Your task to perform on an android device: Open internet settings Image 0: 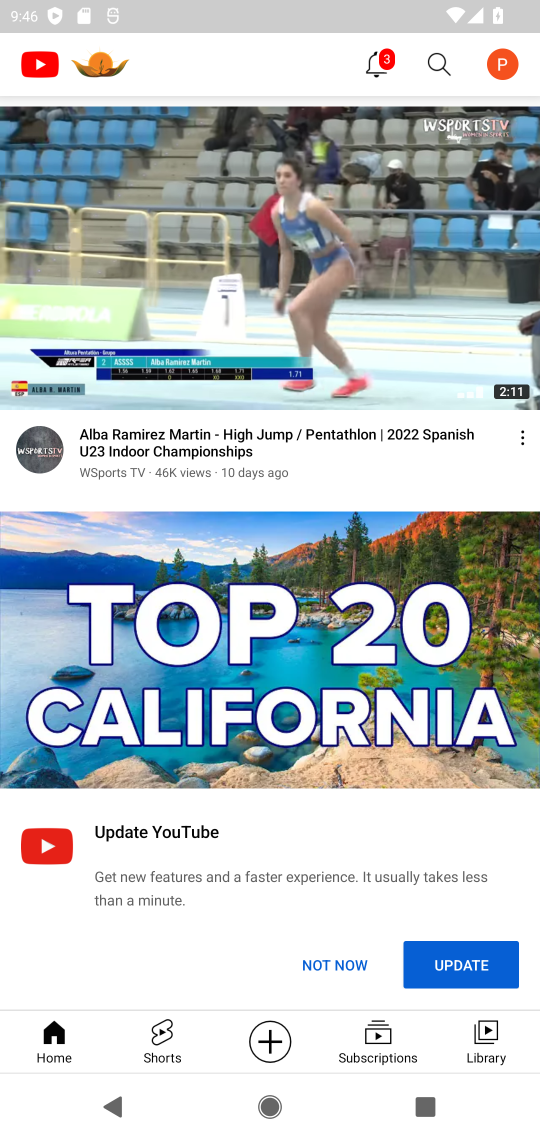
Step 0: press home button
Your task to perform on an android device: Open internet settings Image 1: 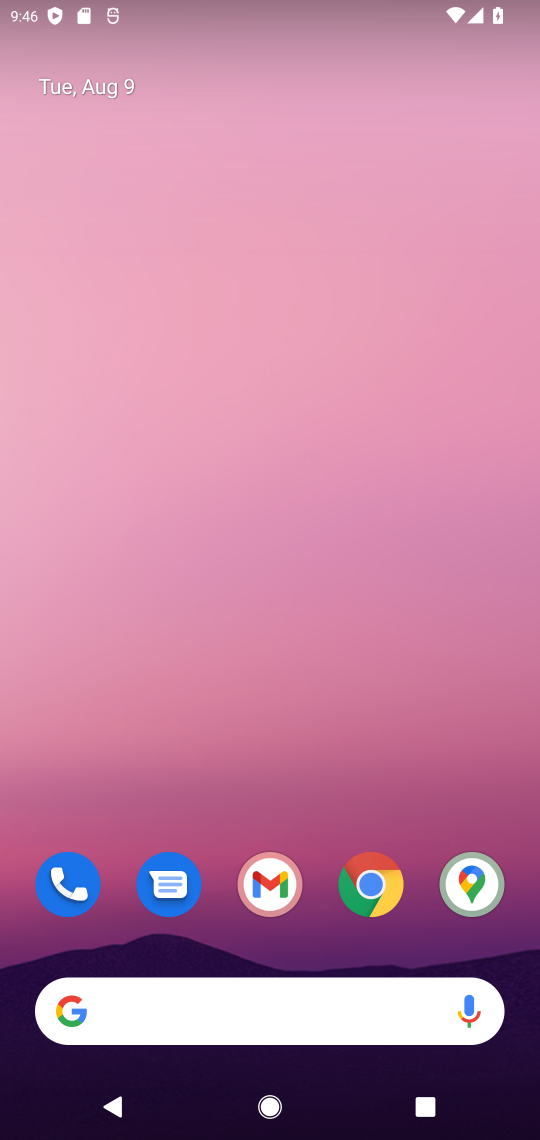
Step 1: drag from (275, 804) to (332, 412)
Your task to perform on an android device: Open internet settings Image 2: 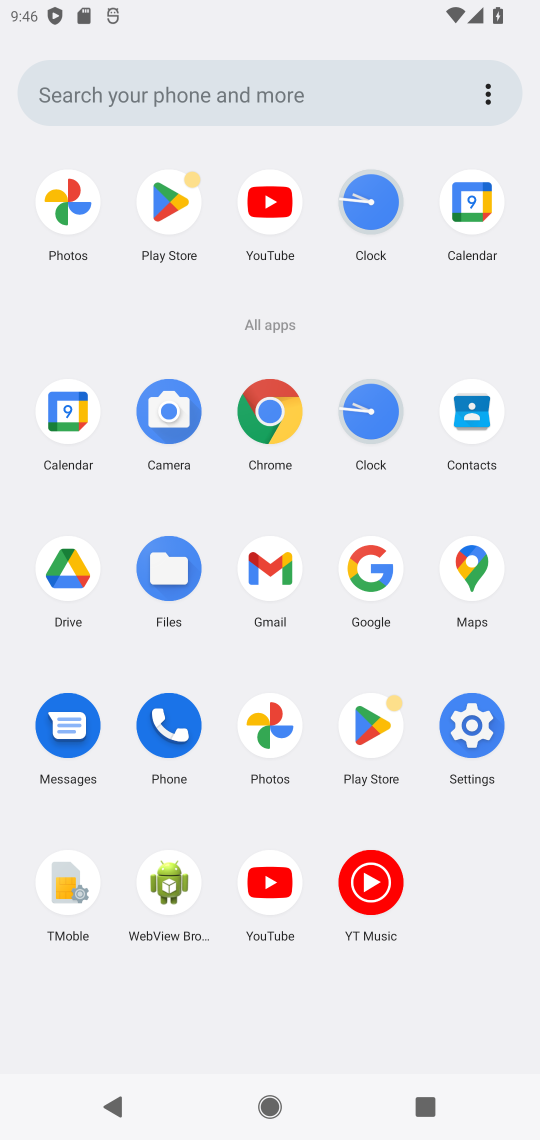
Step 2: click (474, 723)
Your task to perform on an android device: Open internet settings Image 3: 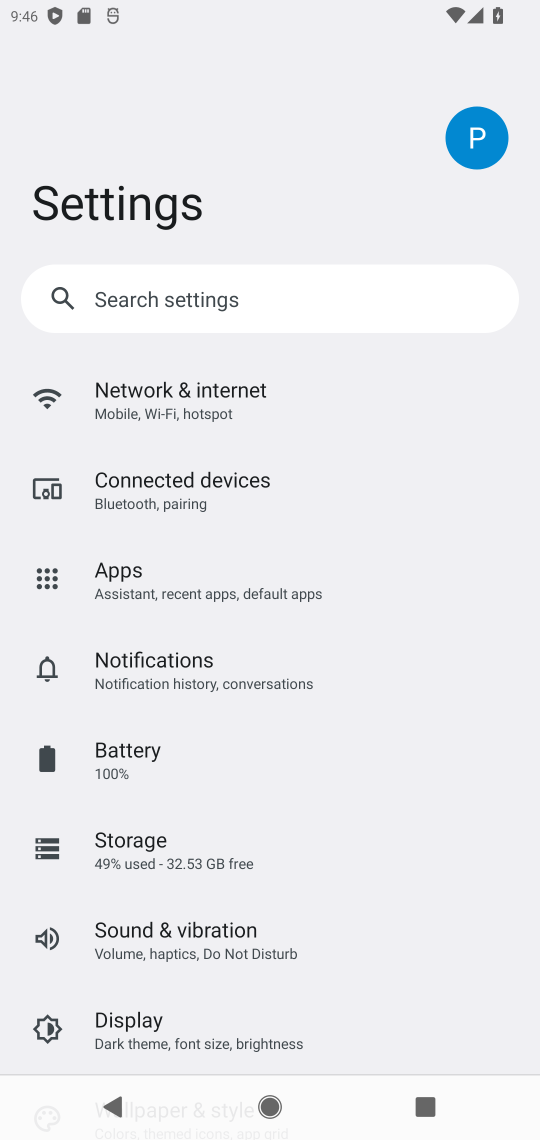
Step 3: click (202, 414)
Your task to perform on an android device: Open internet settings Image 4: 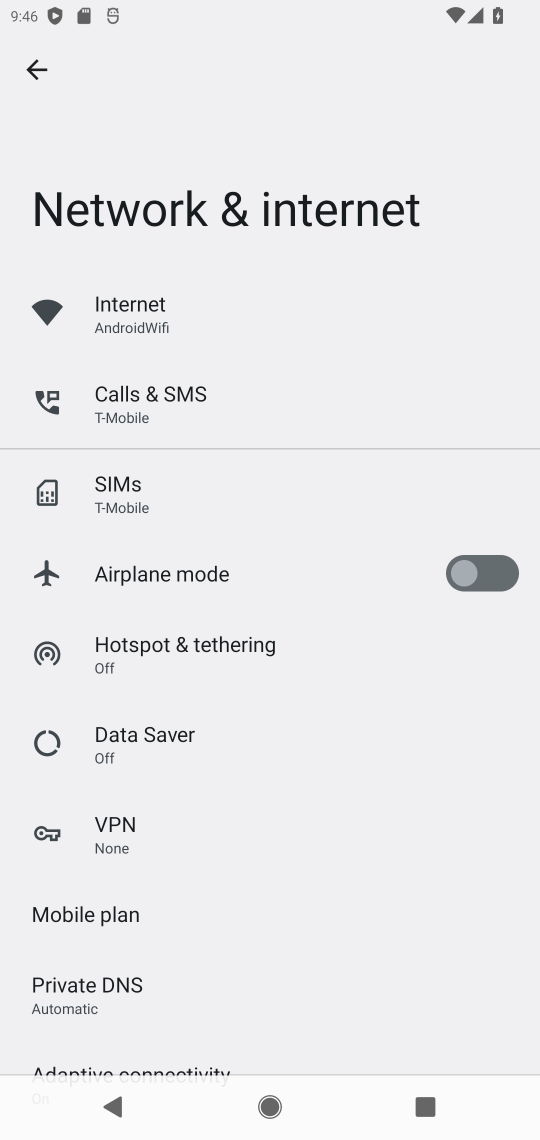
Step 4: click (152, 322)
Your task to perform on an android device: Open internet settings Image 5: 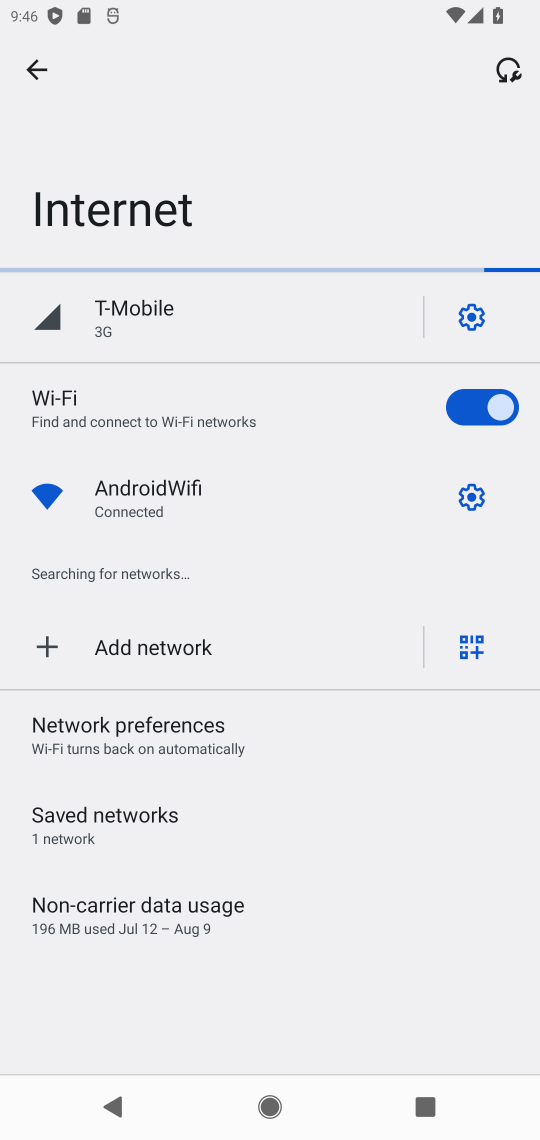
Step 5: task complete